Your task to perform on an android device: open wifi settings Image 0: 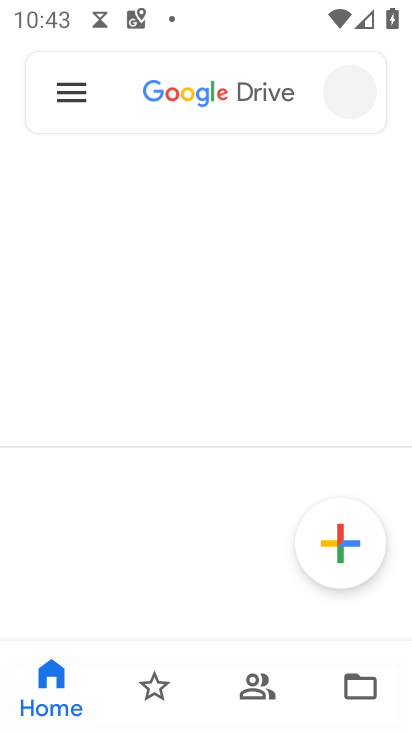
Step 0: click (64, 408)
Your task to perform on an android device: open wifi settings Image 1: 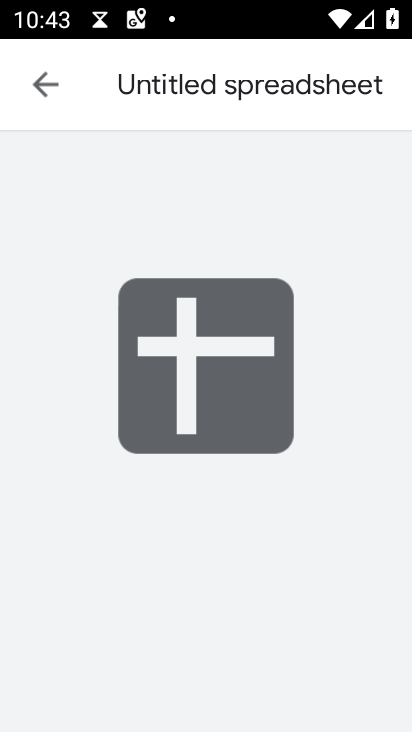
Step 1: press home button
Your task to perform on an android device: open wifi settings Image 2: 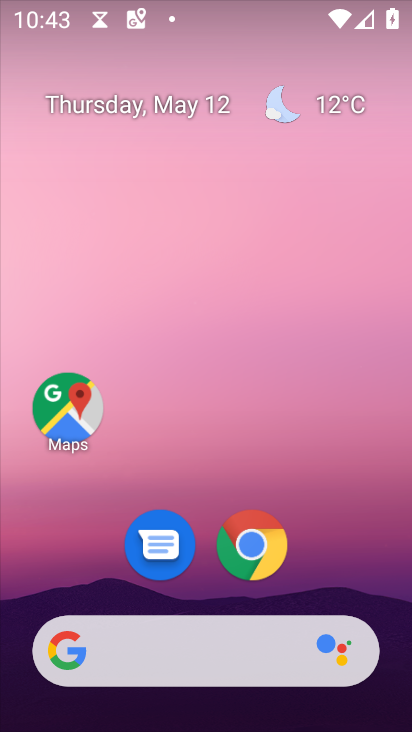
Step 2: drag from (205, 589) to (230, 123)
Your task to perform on an android device: open wifi settings Image 3: 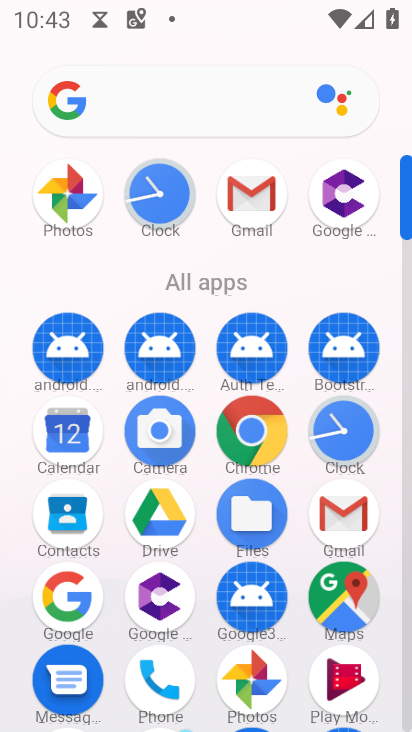
Step 3: drag from (204, 640) to (181, 205)
Your task to perform on an android device: open wifi settings Image 4: 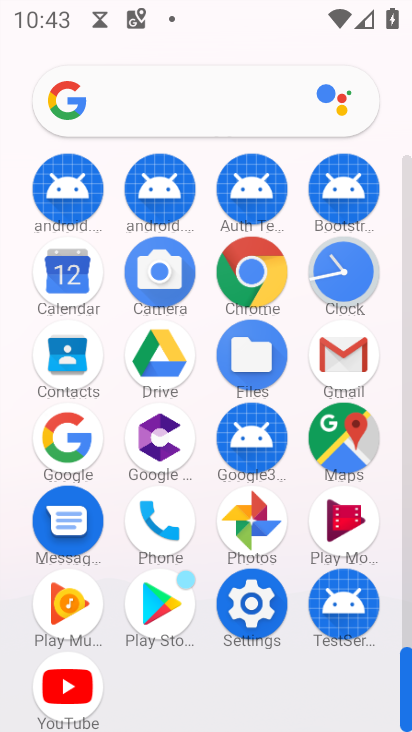
Step 4: click (250, 593)
Your task to perform on an android device: open wifi settings Image 5: 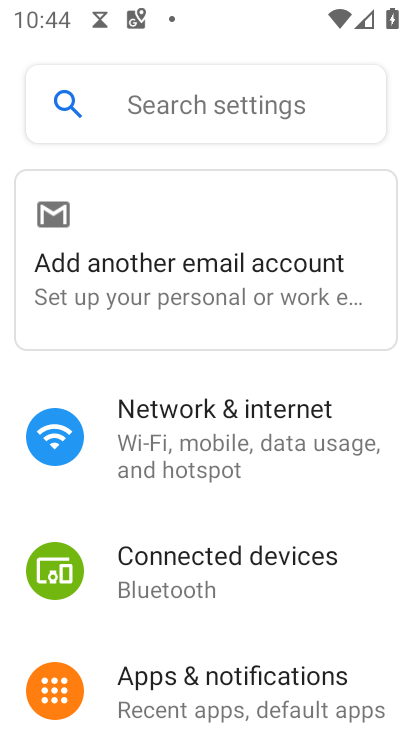
Step 5: click (101, 437)
Your task to perform on an android device: open wifi settings Image 6: 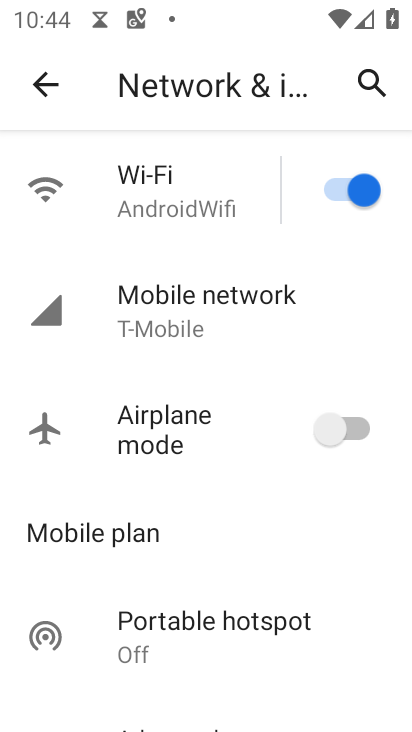
Step 6: click (221, 177)
Your task to perform on an android device: open wifi settings Image 7: 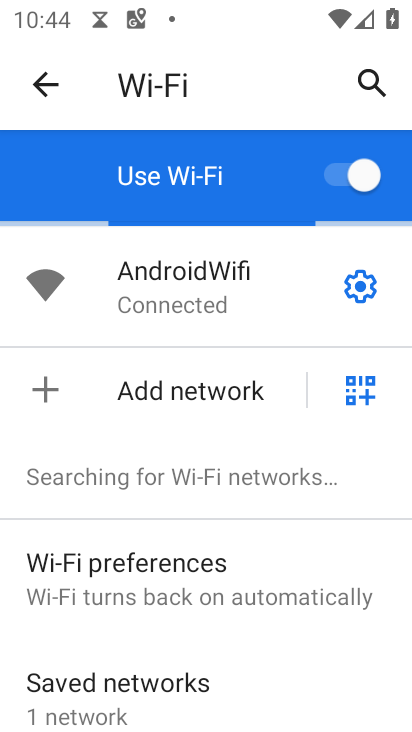
Step 7: task complete